Your task to perform on an android device: turn on data saver in the chrome app Image 0: 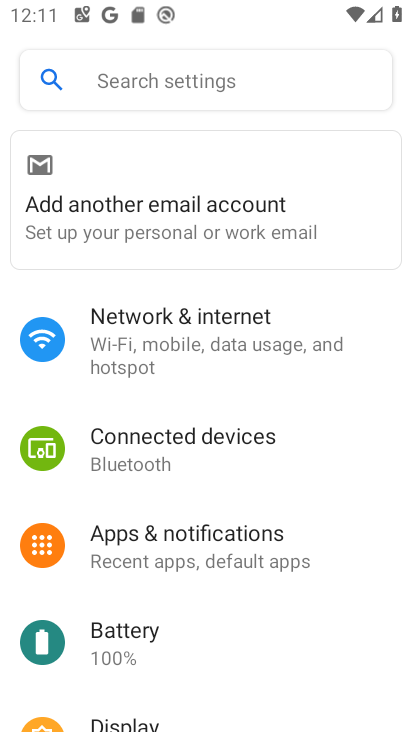
Step 0: press home button
Your task to perform on an android device: turn on data saver in the chrome app Image 1: 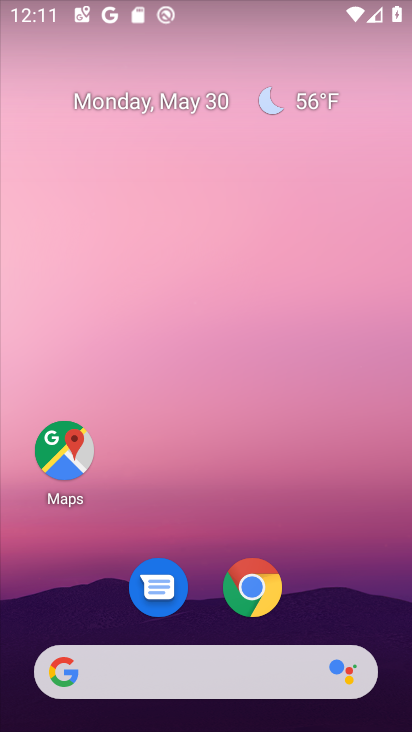
Step 1: drag from (359, 576) to (268, 119)
Your task to perform on an android device: turn on data saver in the chrome app Image 2: 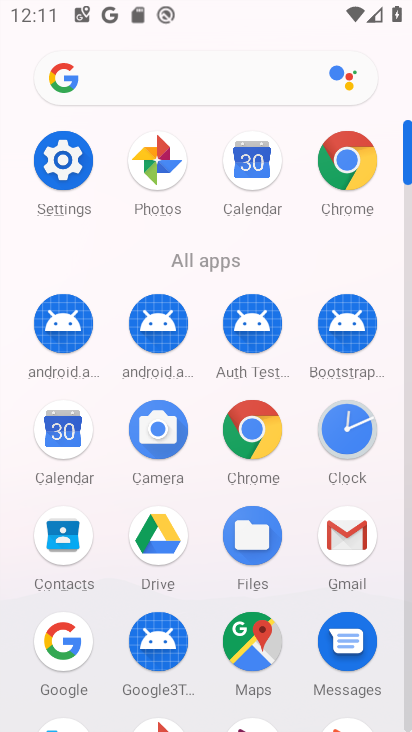
Step 2: click (338, 149)
Your task to perform on an android device: turn on data saver in the chrome app Image 3: 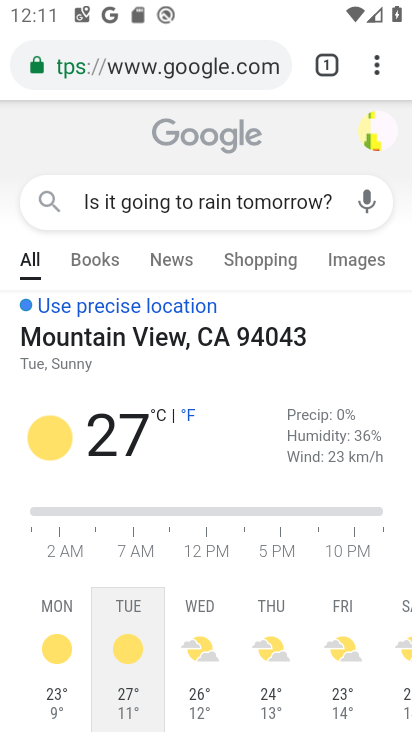
Step 3: click (383, 71)
Your task to perform on an android device: turn on data saver in the chrome app Image 4: 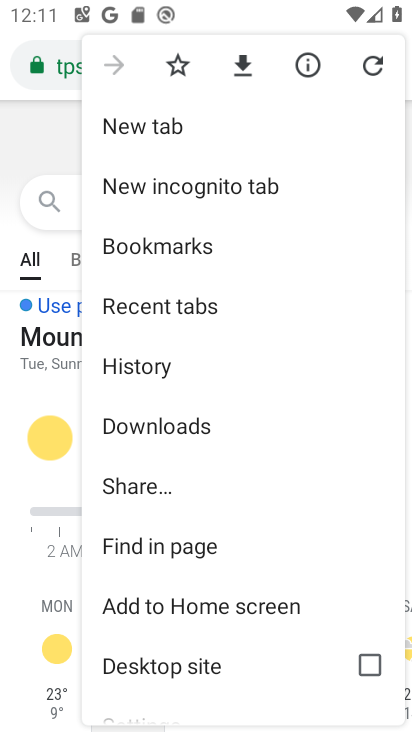
Step 4: drag from (216, 591) to (220, 48)
Your task to perform on an android device: turn on data saver in the chrome app Image 5: 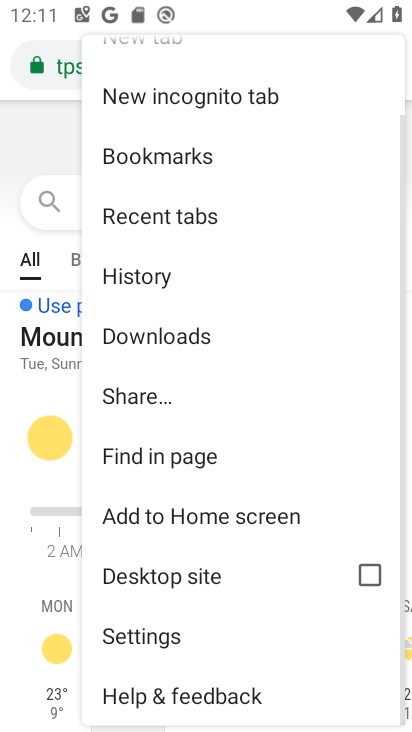
Step 5: click (189, 637)
Your task to perform on an android device: turn on data saver in the chrome app Image 6: 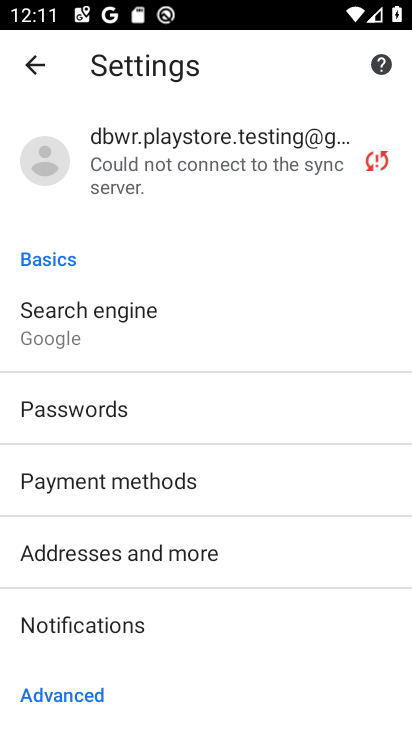
Step 6: drag from (217, 665) to (192, 115)
Your task to perform on an android device: turn on data saver in the chrome app Image 7: 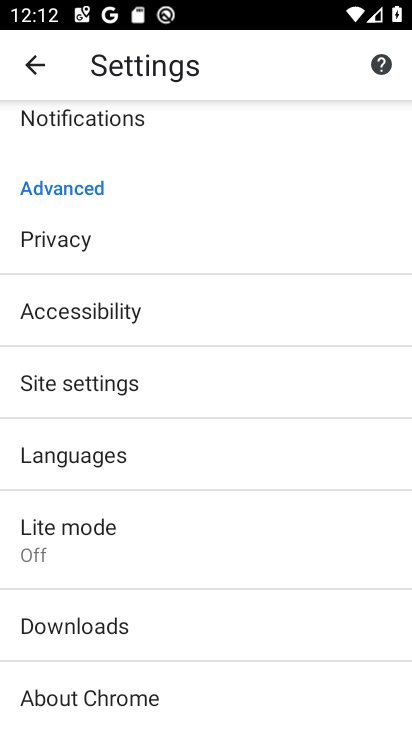
Step 7: drag from (182, 663) to (184, 569)
Your task to perform on an android device: turn on data saver in the chrome app Image 8: 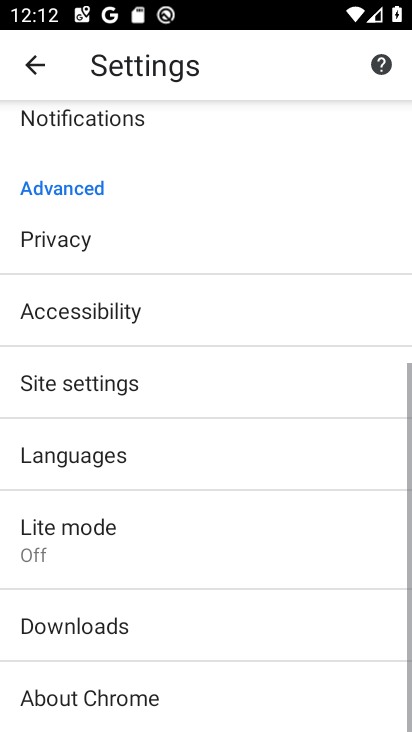
Step 8: click (177, 532)
Your task to perform on an android device: turn on data saver in the chrome app Image 9: 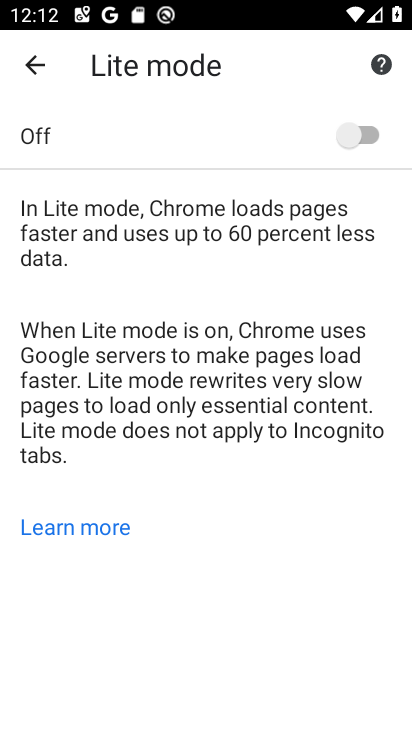
Step 9: click (372, 129)
Your task to perform on an android device: turn on data saver in the chrome app Image 10: 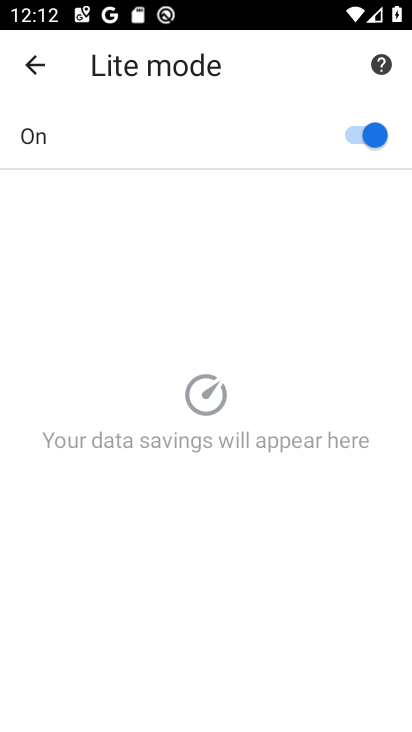
Step 10: task complete